Your task to perform on an android device: change the clock display to digital Image 0: 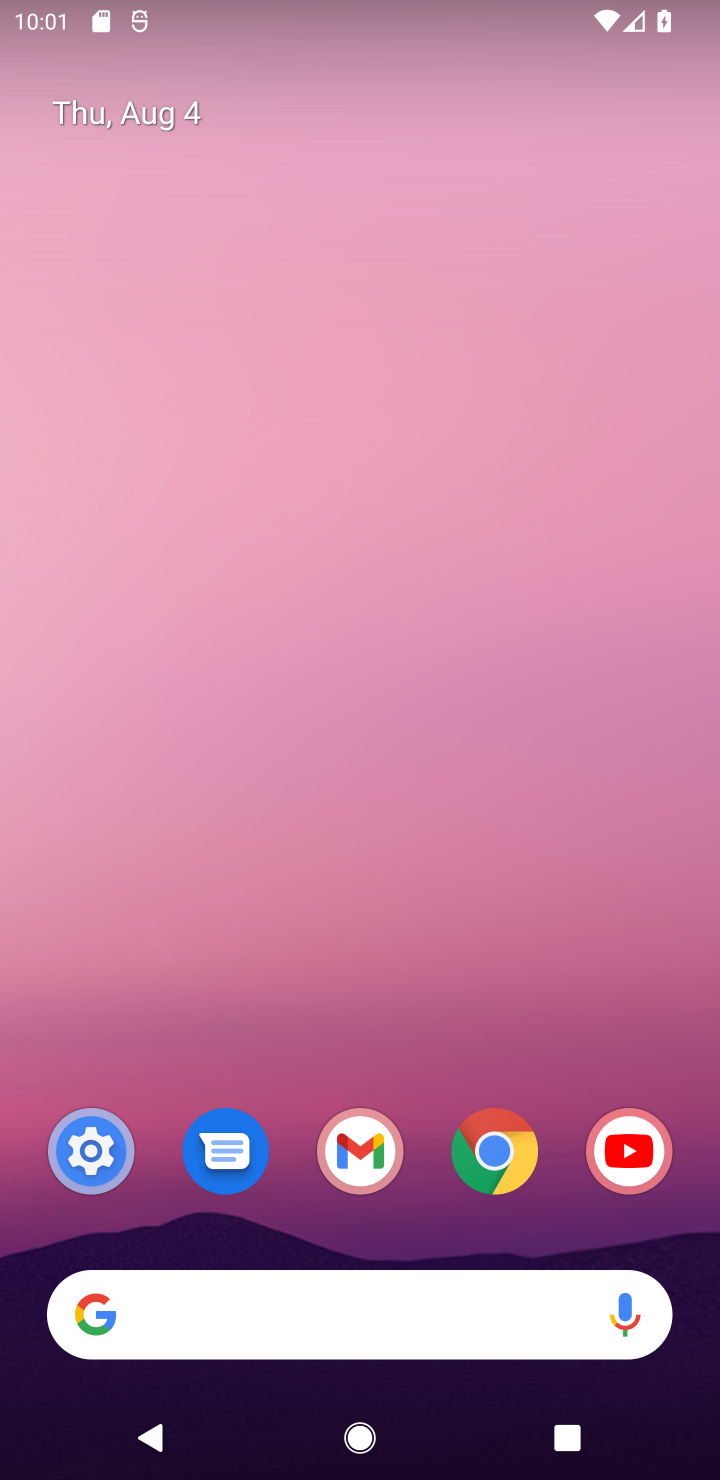
Step 0: press home button
Your task to perform on an android device: change the clock display to digital Image 1: 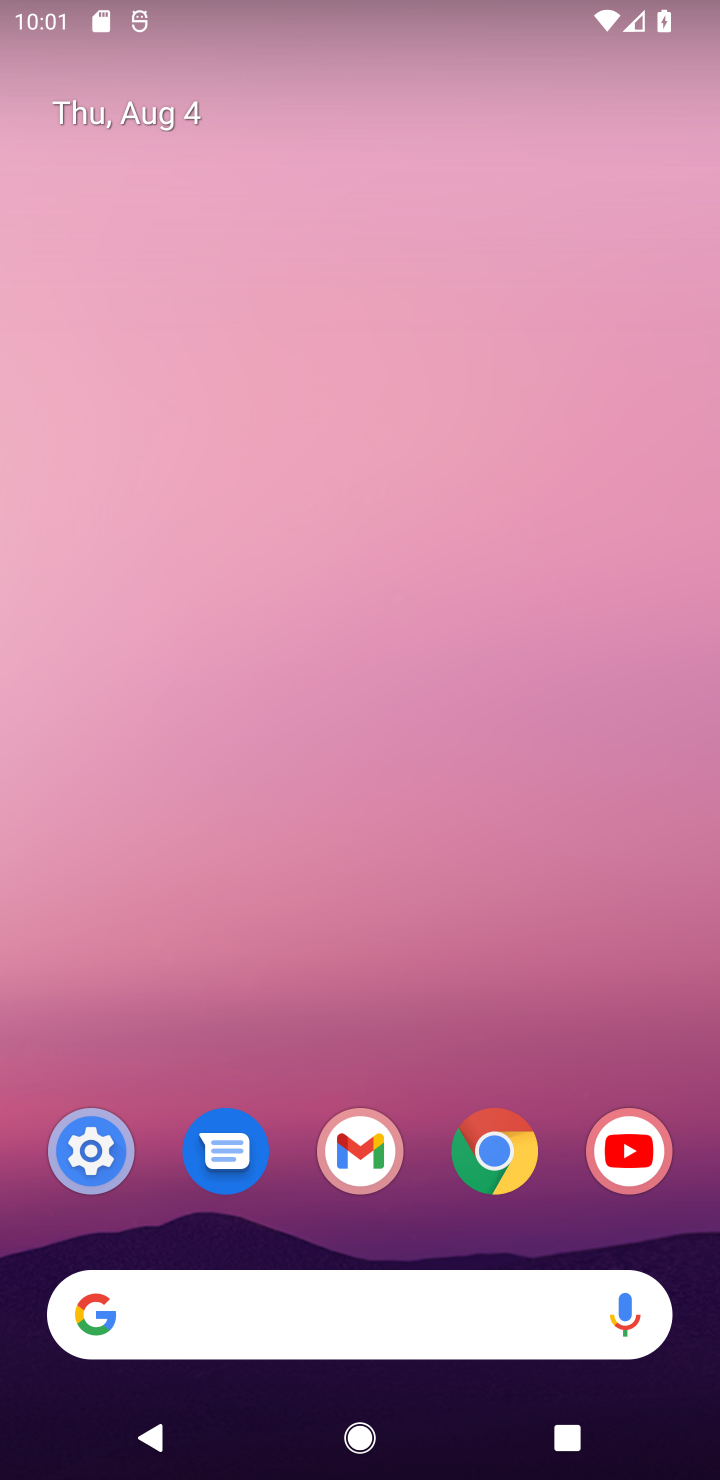
Step 1: drag from (362, 969) to (294, 272)
Your task to perform on an android device: change the clock display to digital Image 2: 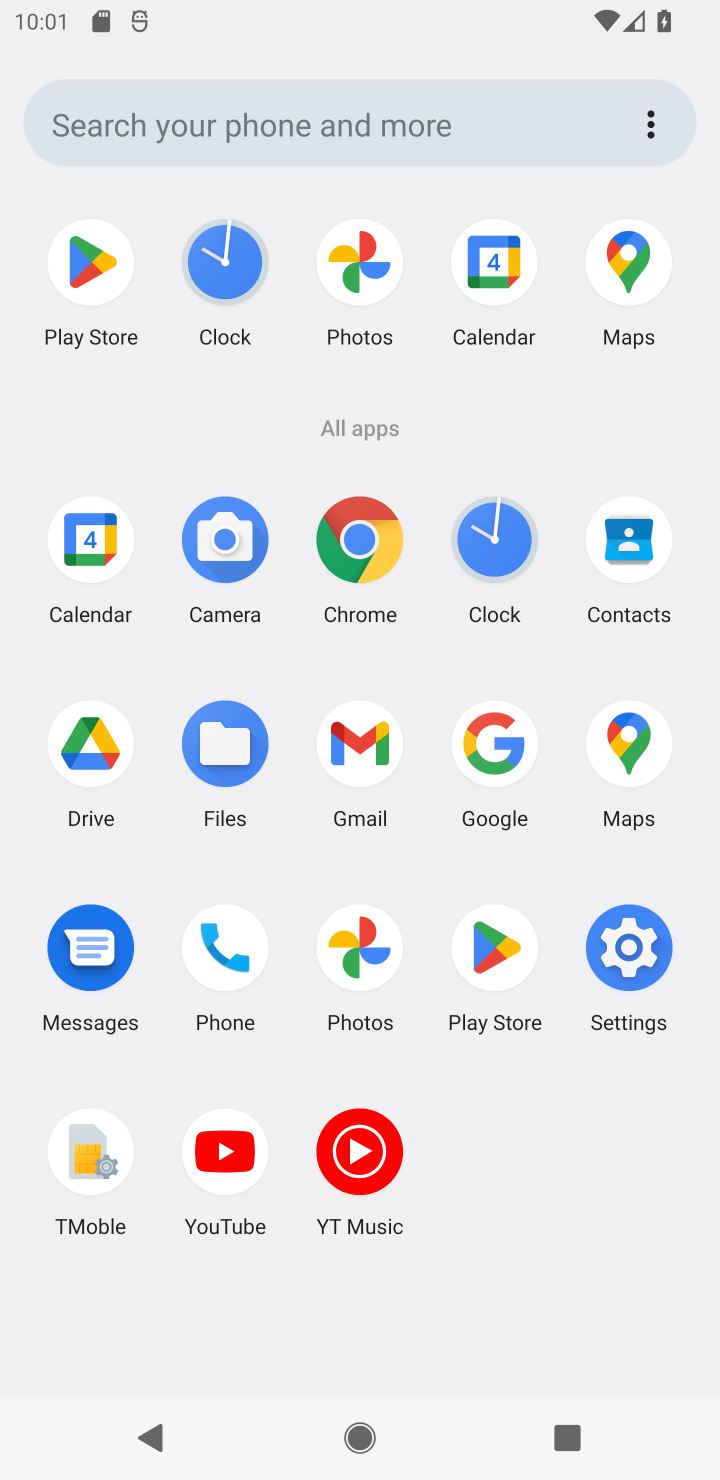
Step 2: click (508, 541)
Your task to perform on an android device: change the clock display to digital Image 3: 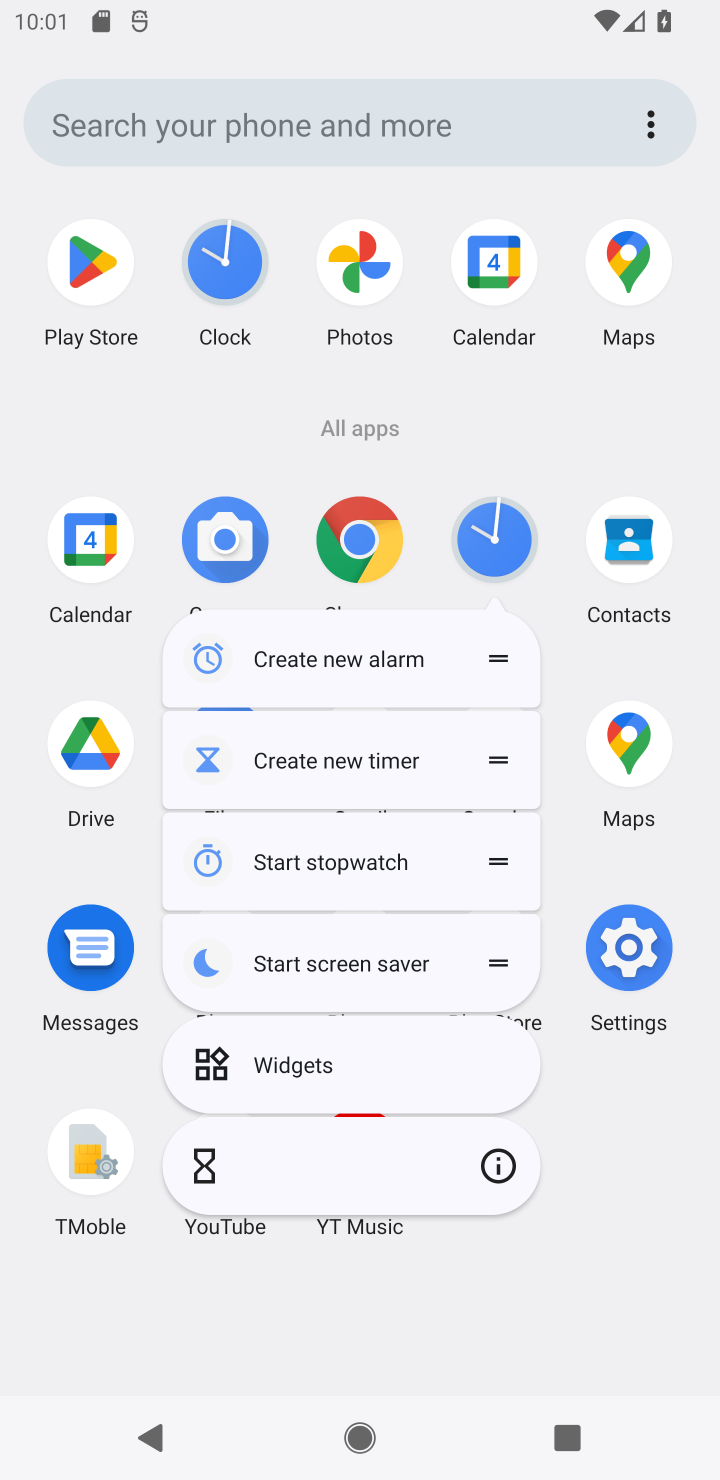
Step 3: click (508, 541)
Your task to perform on an android device: change the clock display to digital Image 4: 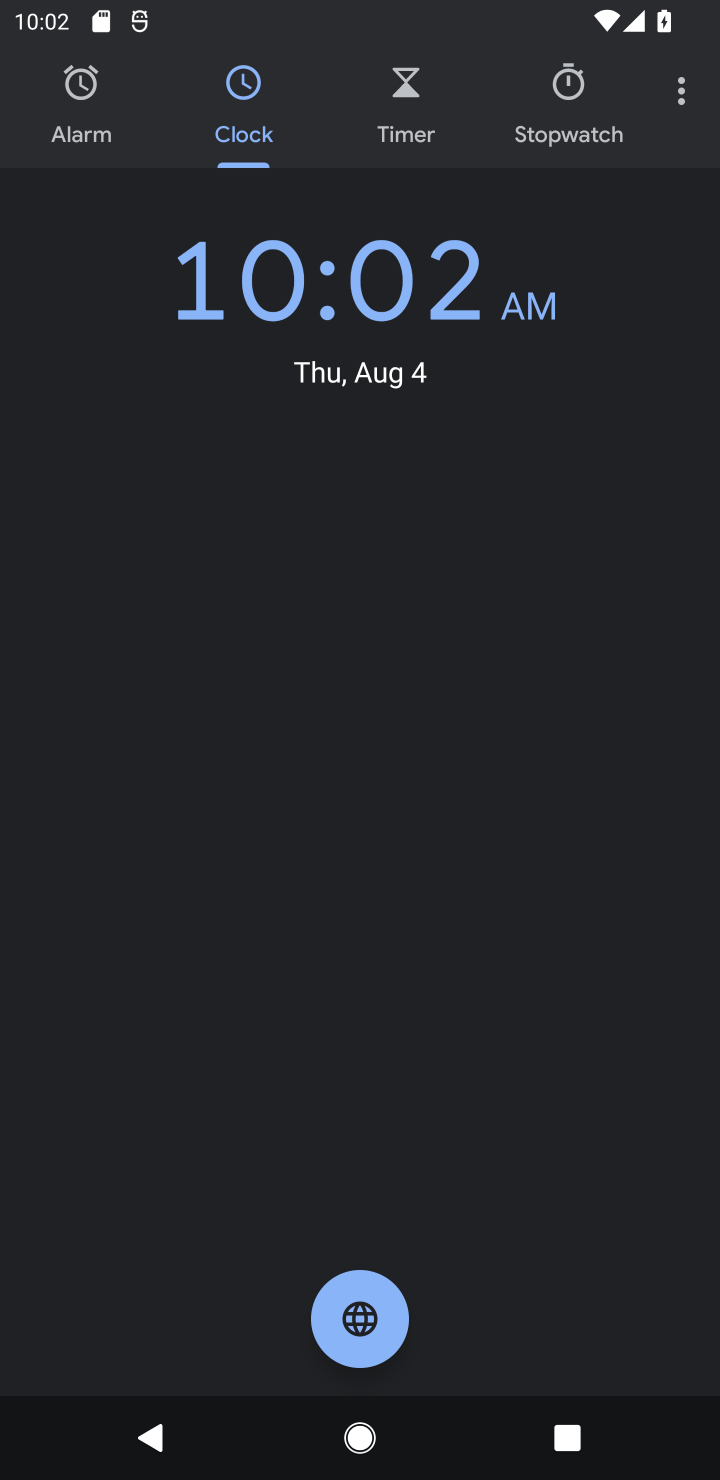
Step 4: click (683, 84)
Your task to perform on an android device: change the clock display to digital Image 5: 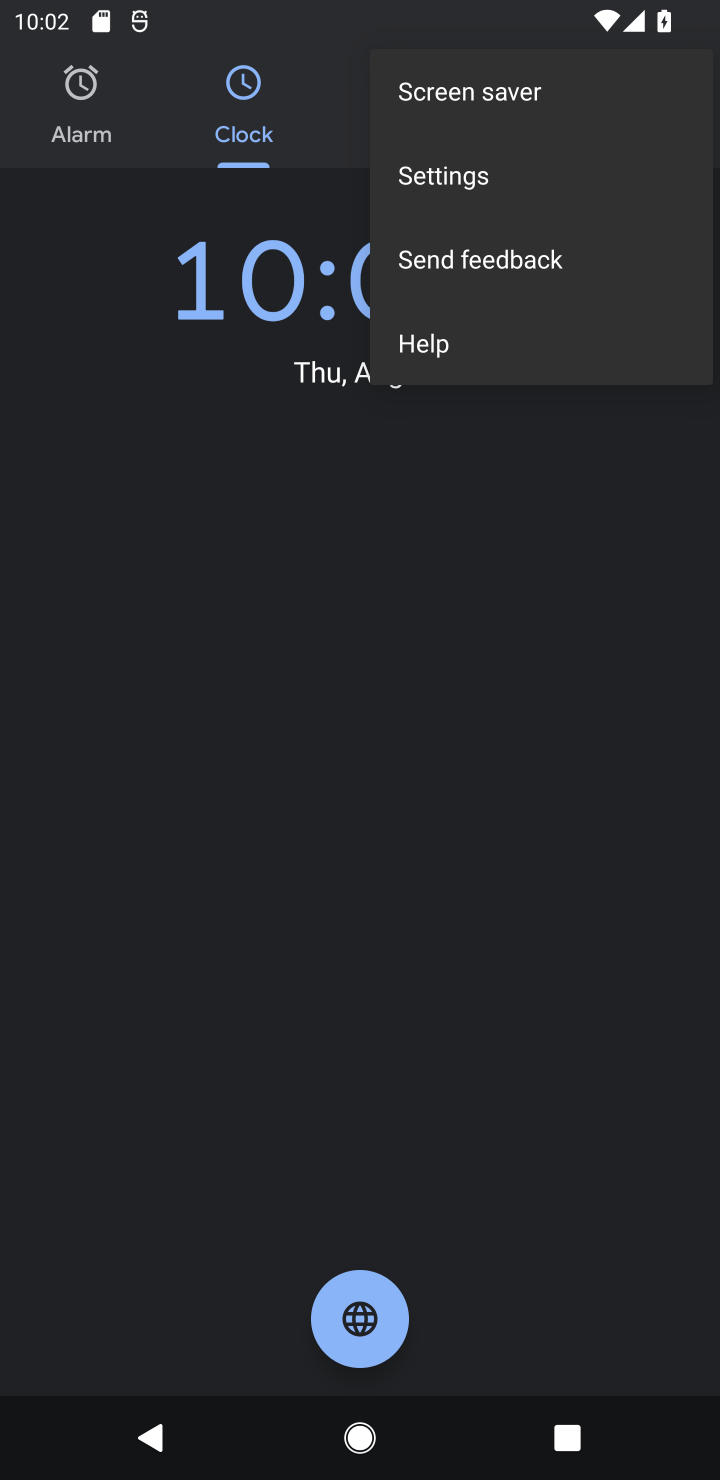
Step 5: click (488, 178)
Your task to perform on an android device: change the clock display to digital Image 6: 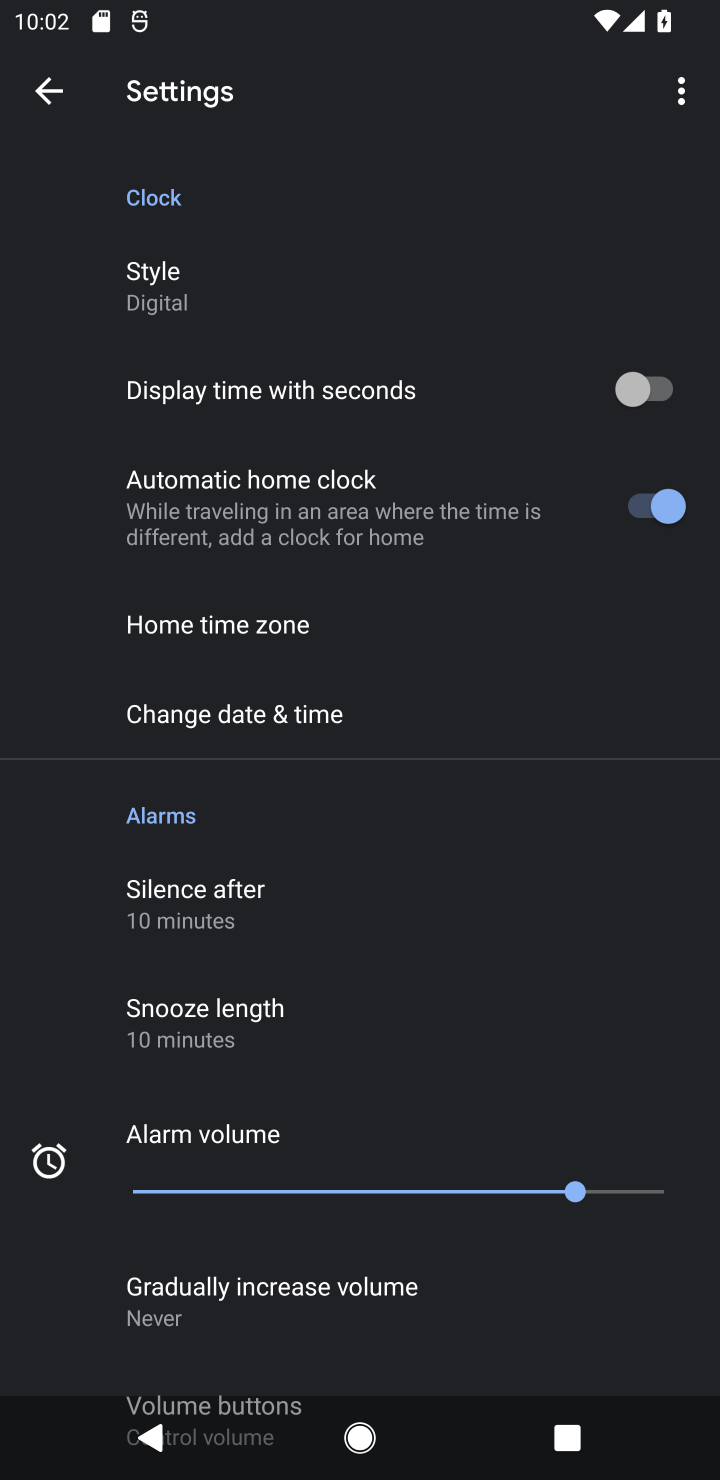
Step 6: click (150, 292)
Your task to perform on an android device: change the clock display to digital Image 7: 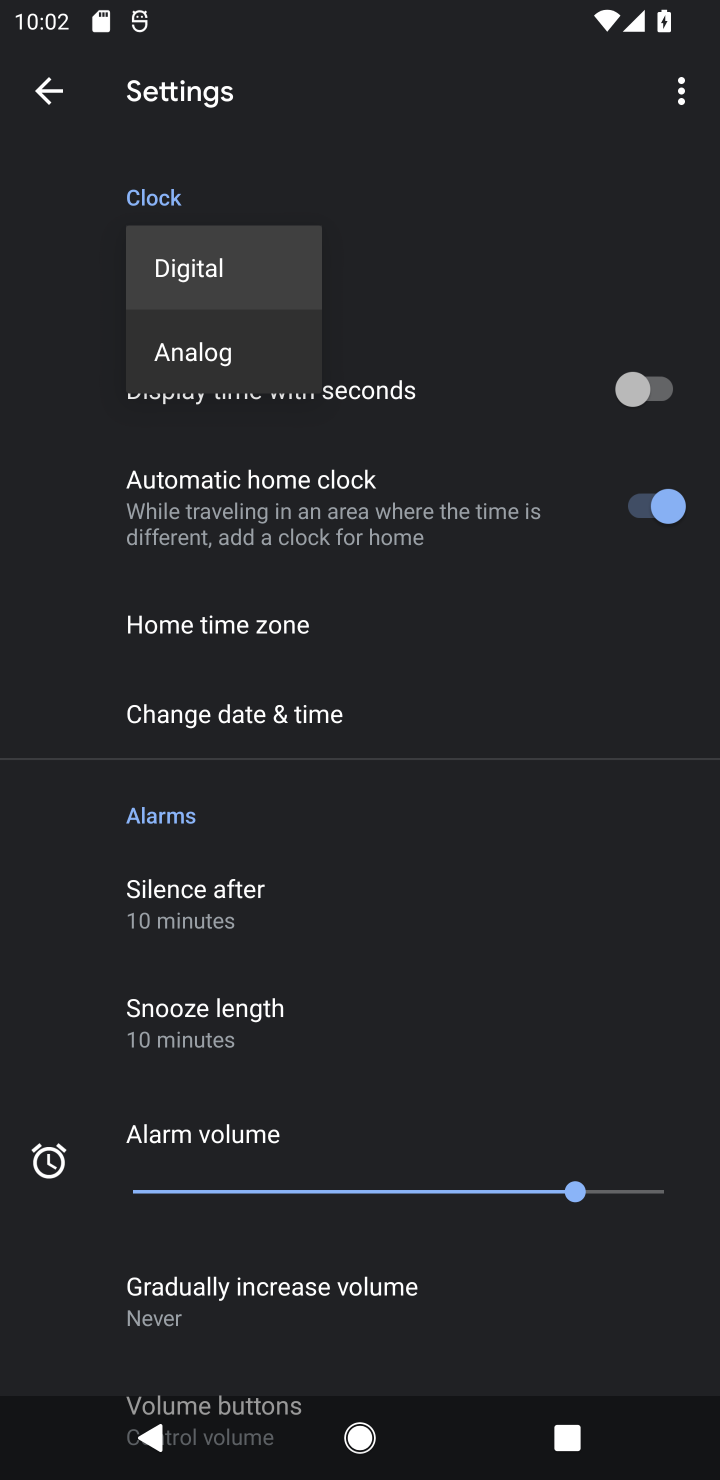
Step 7: task complete